Your task to perform on an android device: open app "Adobe Acrobat Reader: Edit PDF" (install if not already installed) and go to login screen Image 0: 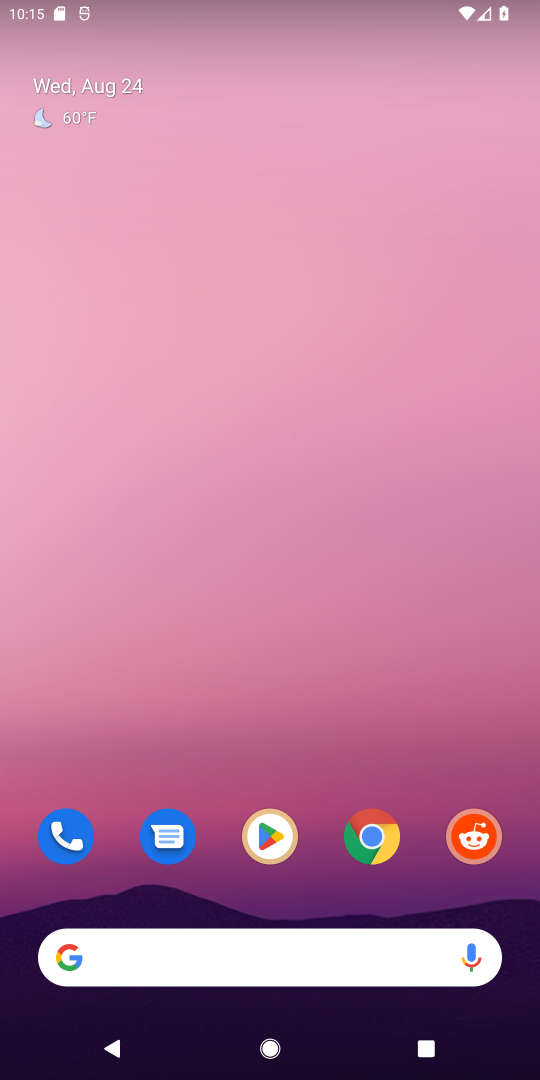
Step 0: click (269, 820)
Your task to perform on an android device: open app "Adobe Acrobat Reader: Edit PDF" (install if not already installed) and go to login screen Image 1: 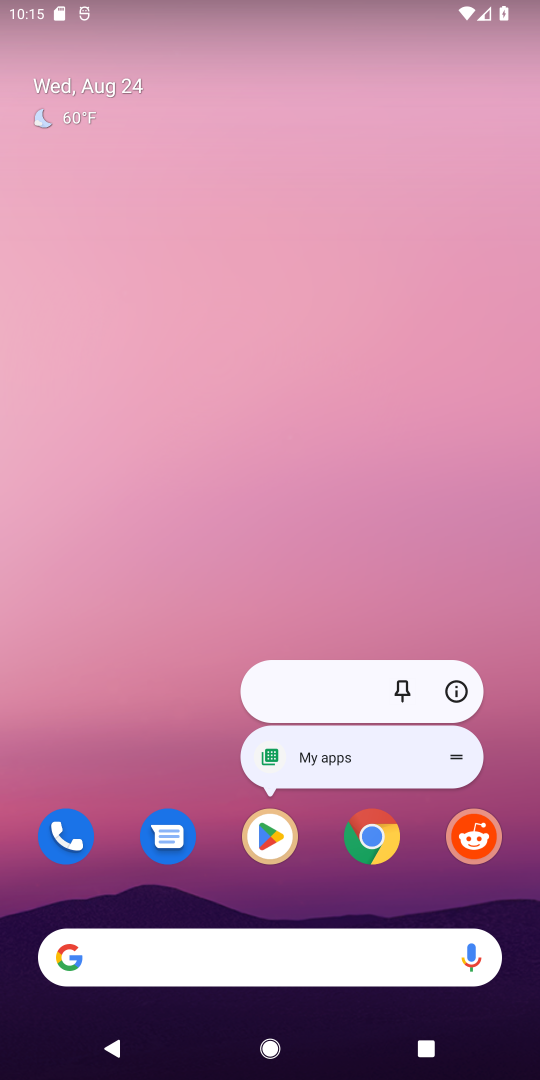
Step 1: click (269, 820)
Your task to perform on an android device: open app "Adobe Acrobat Reader: Edit PDF" (install if not already installed) and go to login screen Image 2: 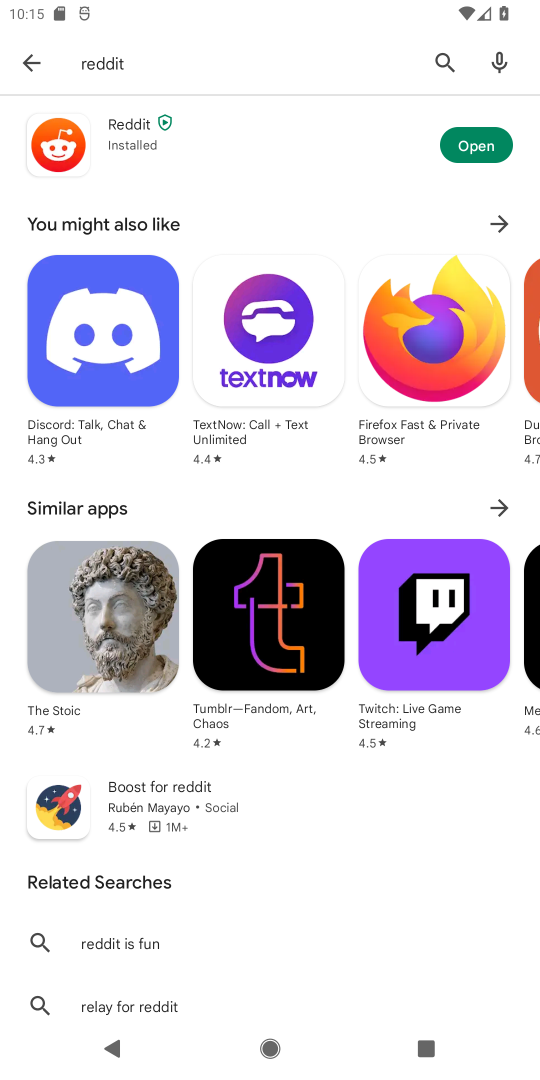
Step 2: click (445, 61)
Your task to perform on an android device: open app "Adobe Acrobat Reader: Edit PDF" (install if not already installed) and go to login screen Image 3: 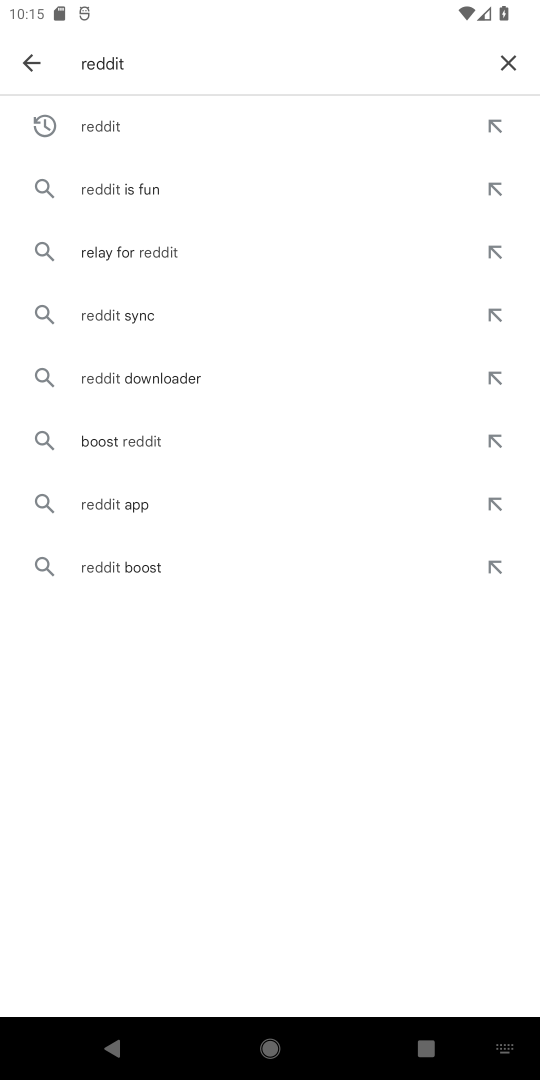
Step 3: click (511, 49)
Your task to perform on an android device: open app "Adobe Acrobat Reader: Edit PDF" (install if not already installed) and go to login screen Image 4: 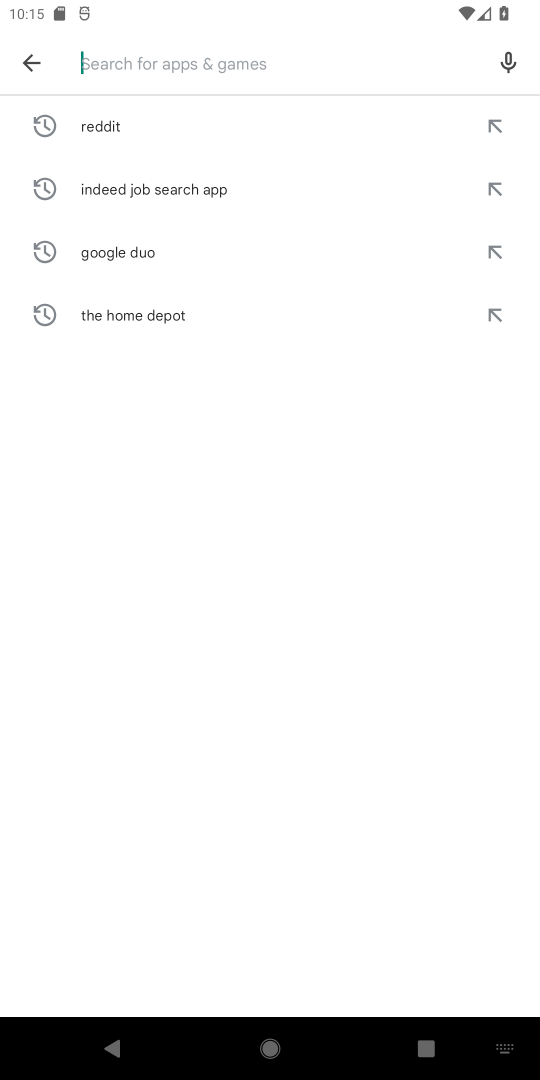
Step 4: type "Adobe Acrobat Reader: Edit PDF"
Your task to perform on an android device: open app "Adobe Acrobat Reader: Edit PDF" (install if not already installed) and go to login screen Image 5: 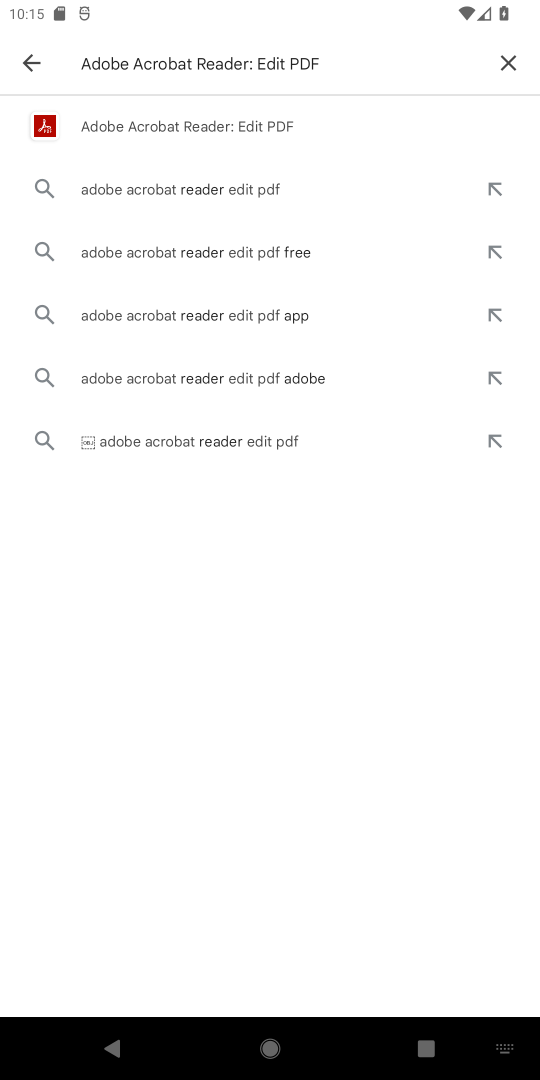
Step 5: click (152, 139)
Your task to perform on an android device: open app "Adobe Acrobat Reader: Edit PDF" (install if not already installed) and go to login screen Image 6: 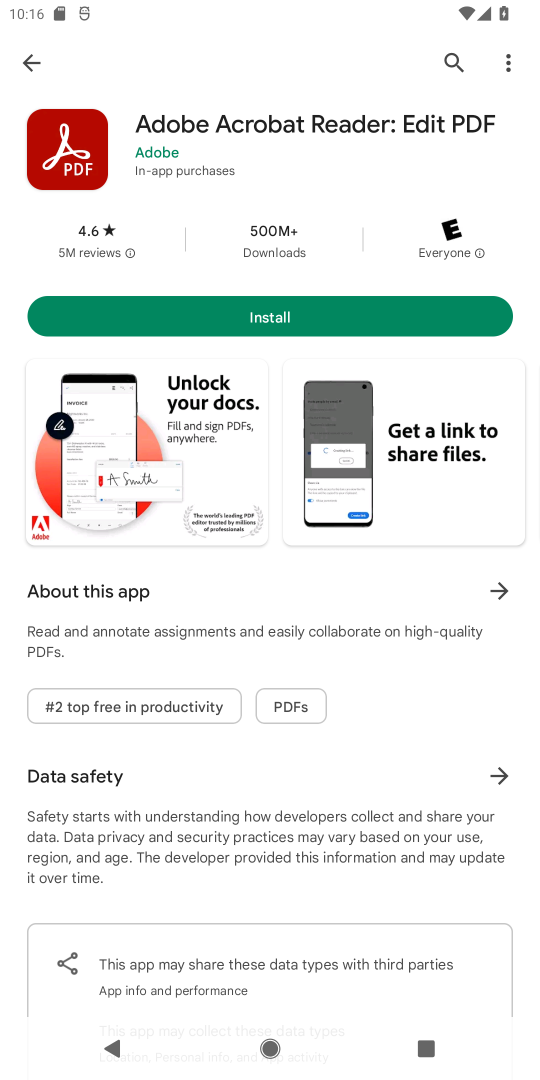
Step 6: click (225, 325)
Your task to perform on an android device: open app "Adobe Acrobat Reader: Edit PDF" (install if not already installed) and go to login screen Image 7: 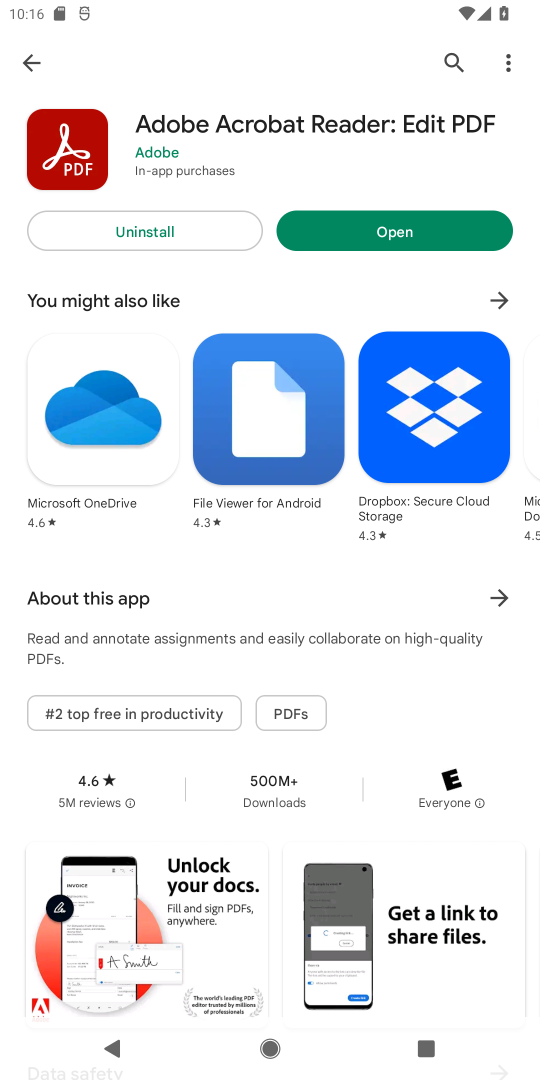
Step 7: click (378, 234)
Your task to perform on an android device: open app "Adobe Acrobat Reader: Edit PDF" (install if not already installed) and go to login screen Image 8: 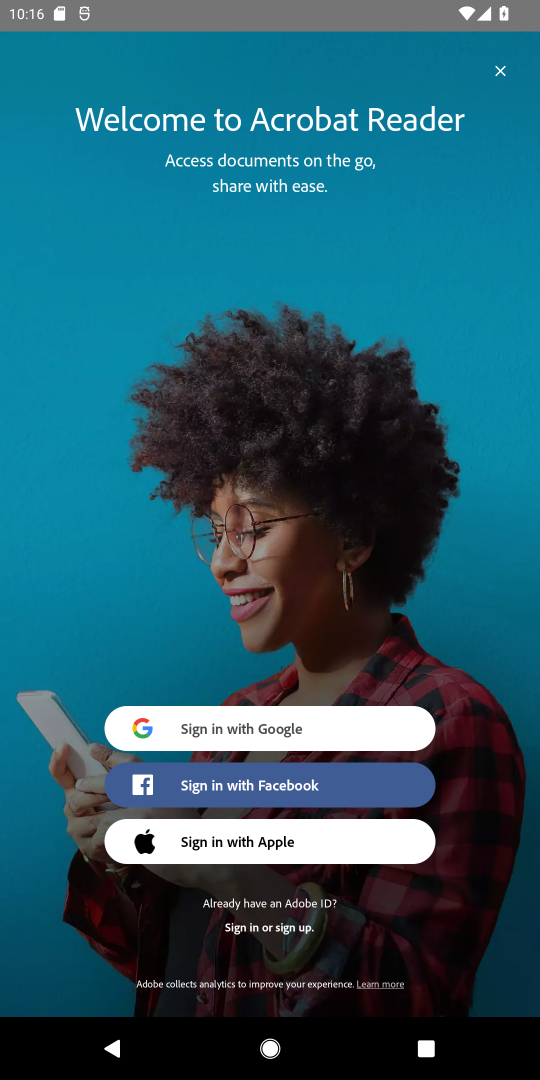
Step 8: task complete